Your task to perform on an android device: Go to notification settings Image 0: 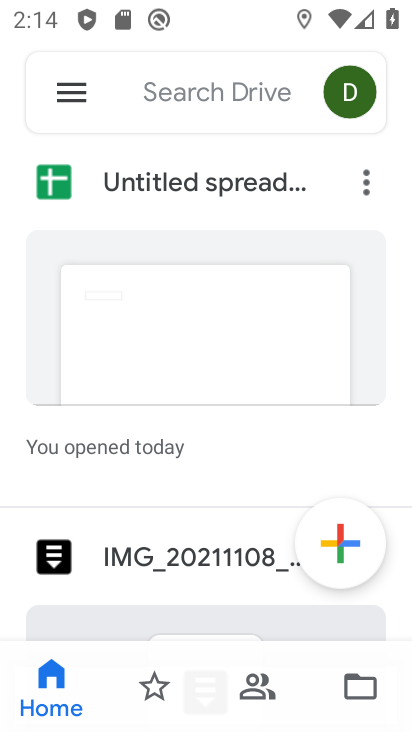
Step 0: press home button
Your task to perform on an android device: Go to notification settings Image 1: 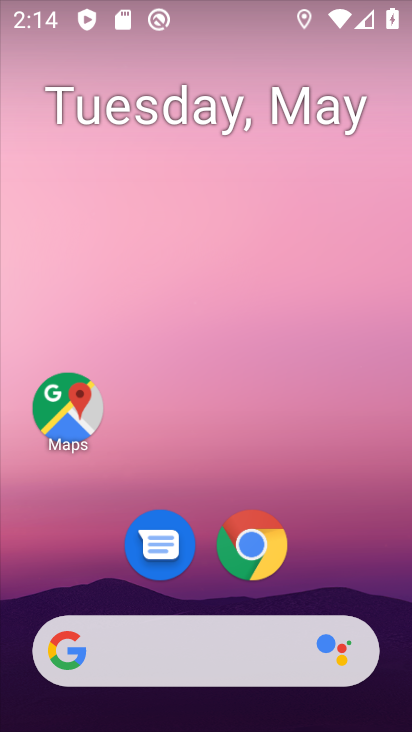
Step 1: drag from (207, 575) to (279, 57)
Your task to perform on an android device: Go to notification settings Image 2: 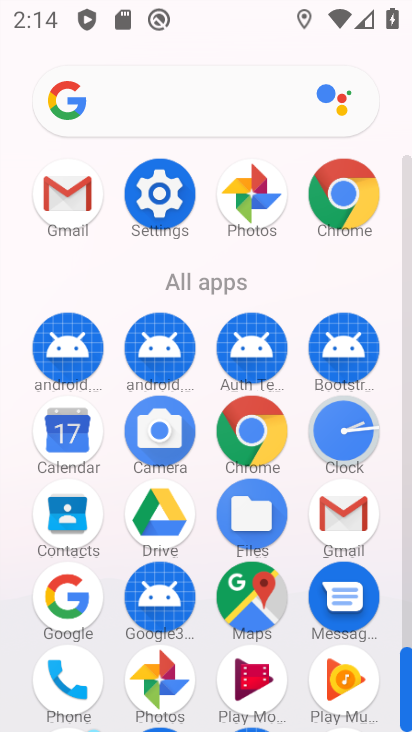
Step 2: click (159, 212)
Your task to perform on an android device: Go to notification settings Image 3: 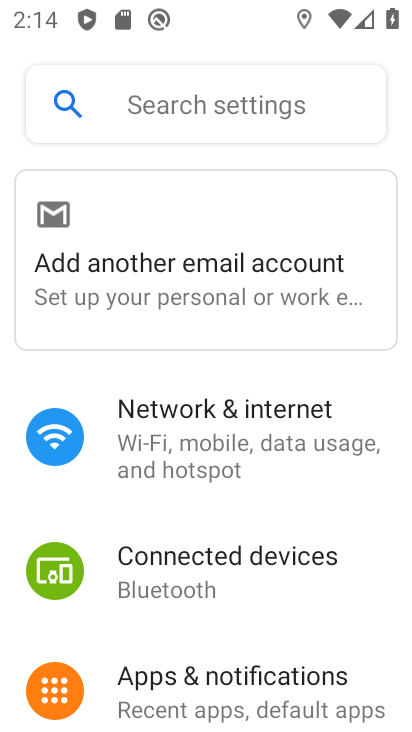
Step 3: click (211, 686)
Your task to perform on an android device: Go to notification settings Image 4: 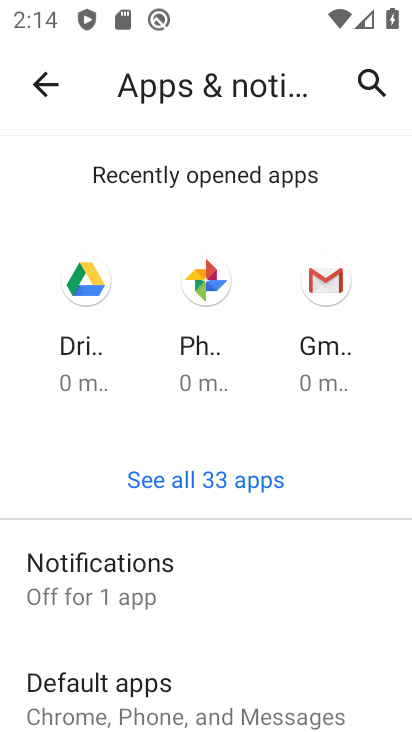
Step 4: click (147, 590)
Your task to perform on an android device: Go to notification settings Image 5: 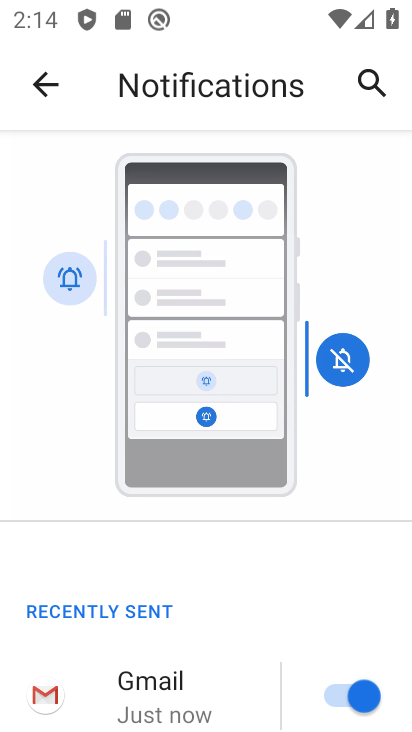
Step 5: task complete